Your task to perform on an android device: install app "Pluto TV - Live TV and Movies" Image 0: 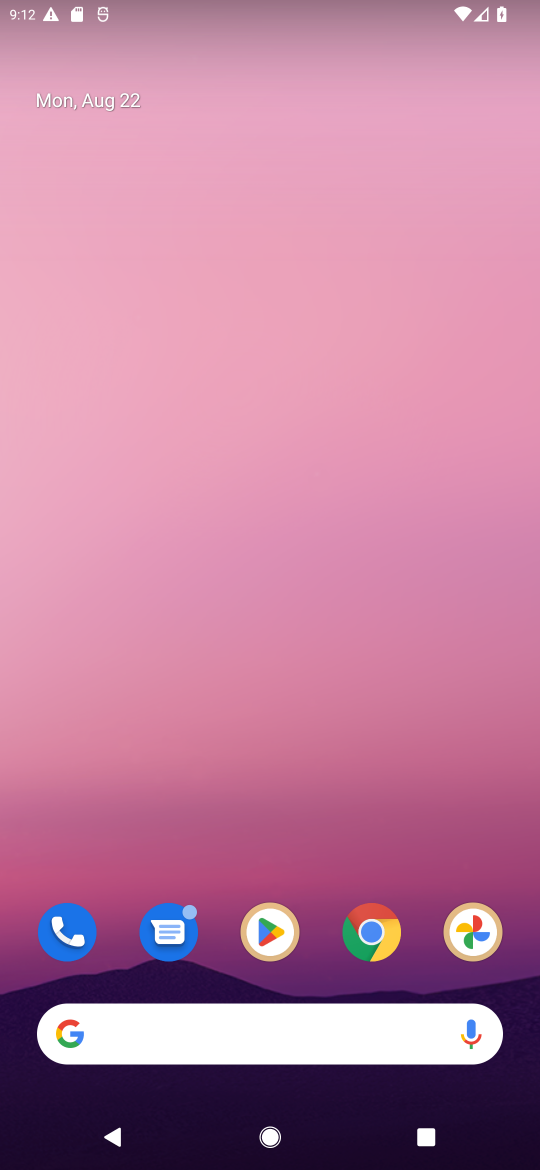
Step 0: click (255, 956)
Your task to perform on an android device: install app "Pluto TV - Live TV and Movies" Image 1: 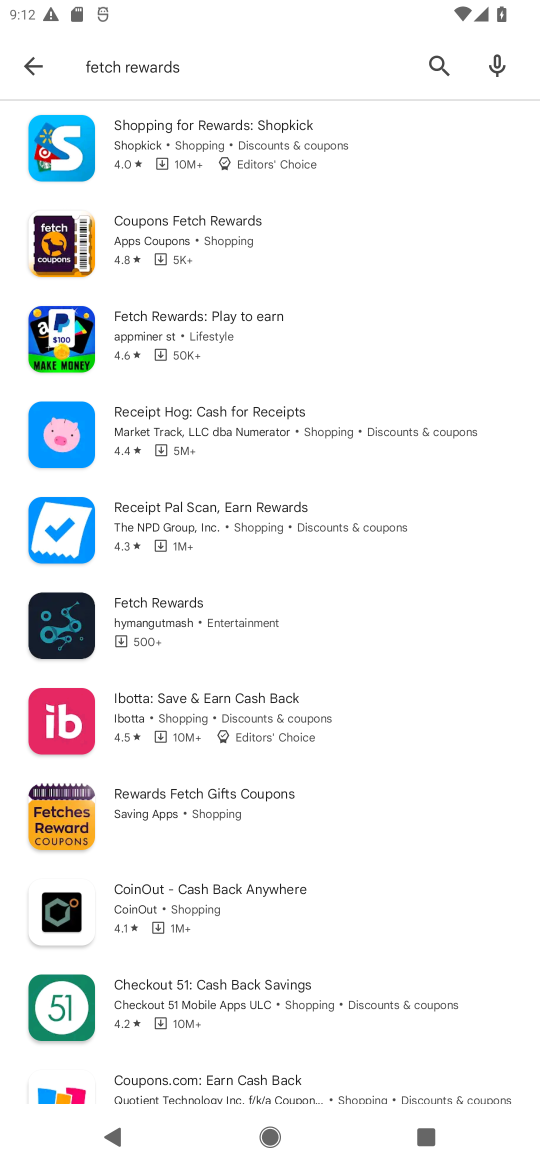
Step 1: click (462, 79)
Your task to perform on an android device: install app "Pluto TV - Live TV and Movies" Image 2: 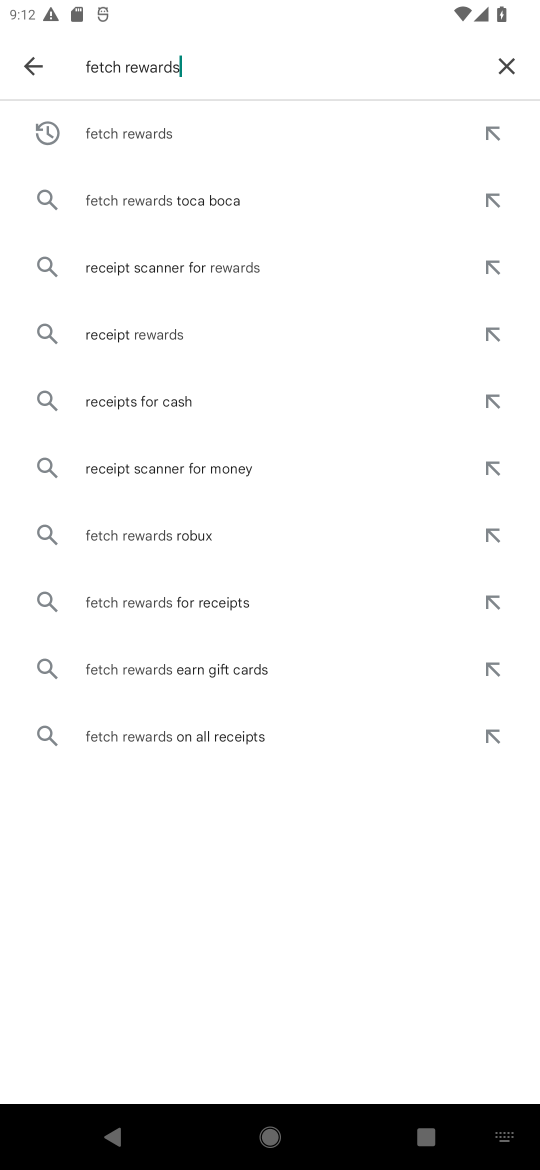
Step 2: click (426, 68)
Your task to perform on an android device: install app "Pluto TV - Live TV and Movies" Image 3: 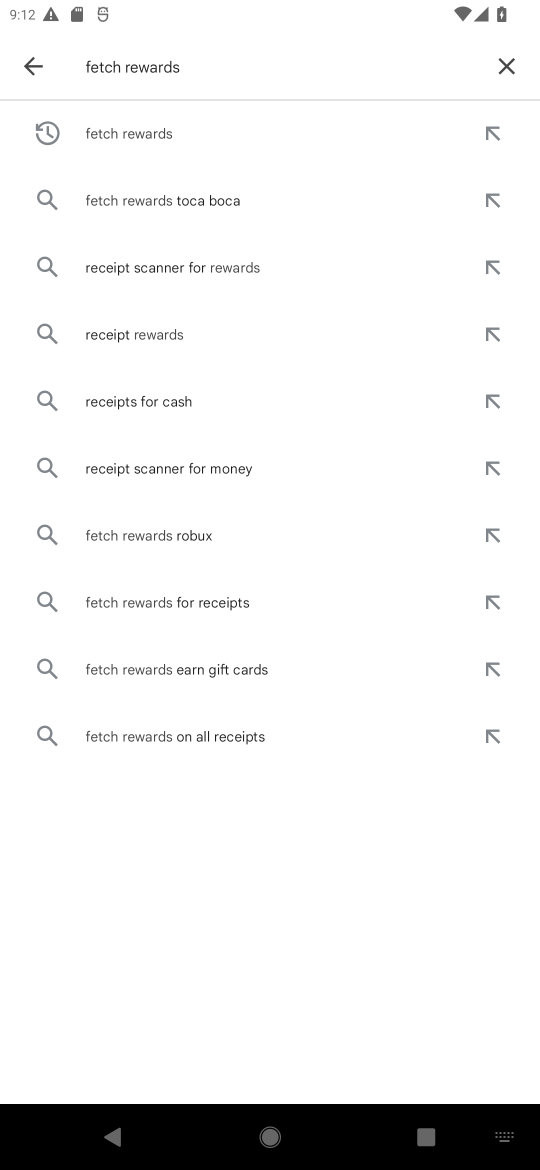
Step 3: click (438, 64)
Your task to perform on an android device: install app "Pluto TV - Live TV and Movies" Image 4: 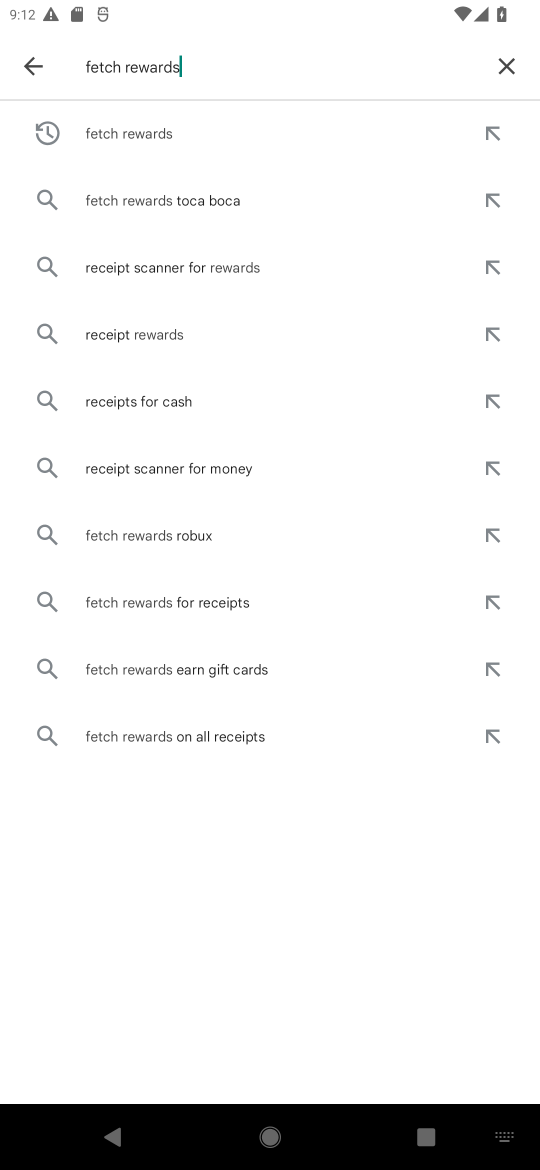
Step 4: click (519, 65)
Your task to perform on an android device: install app "Pluto TV - Live TV and Movies" Image 5: 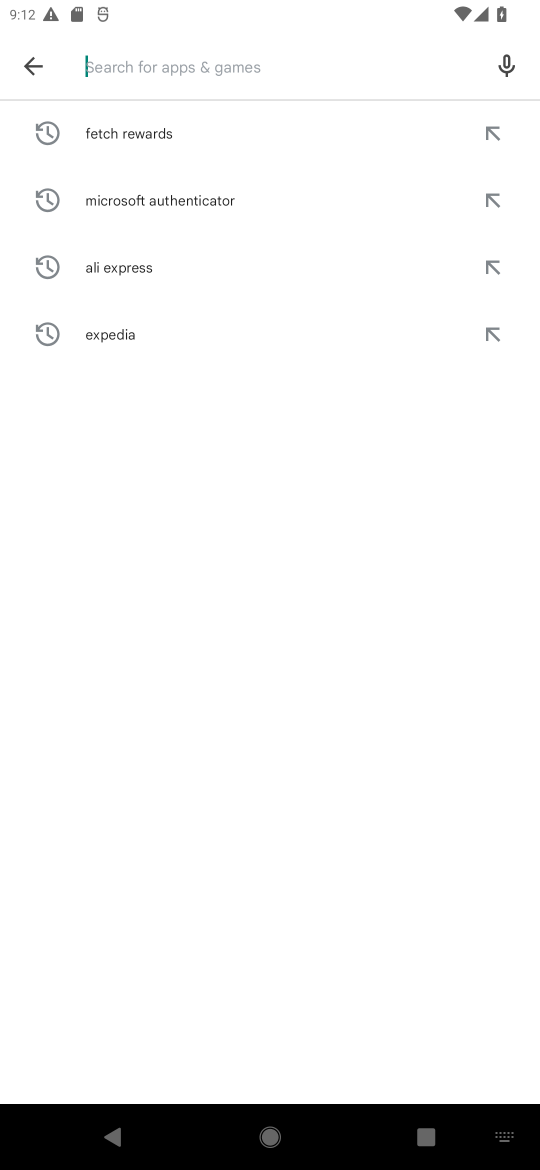
Step 5: type "pluto"
Your task to perform on an android device: install app "Pluto TV - Live TV and Movies" Image 6: 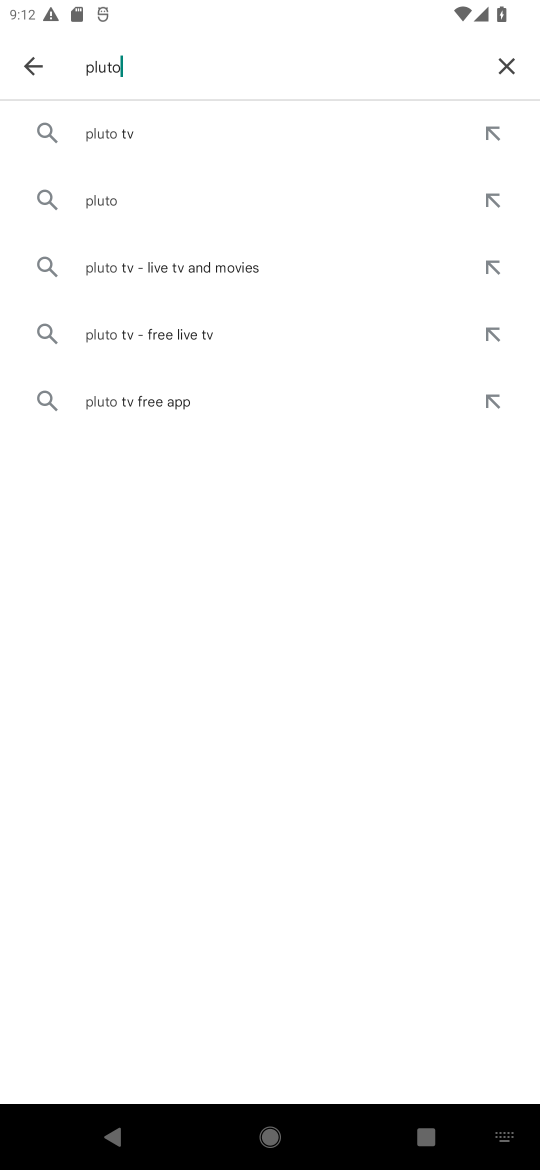
Step 6: click (164, 111)
Your task to perform on an android device: install app "Pluto TV - Live TV and Movies" Image 7: 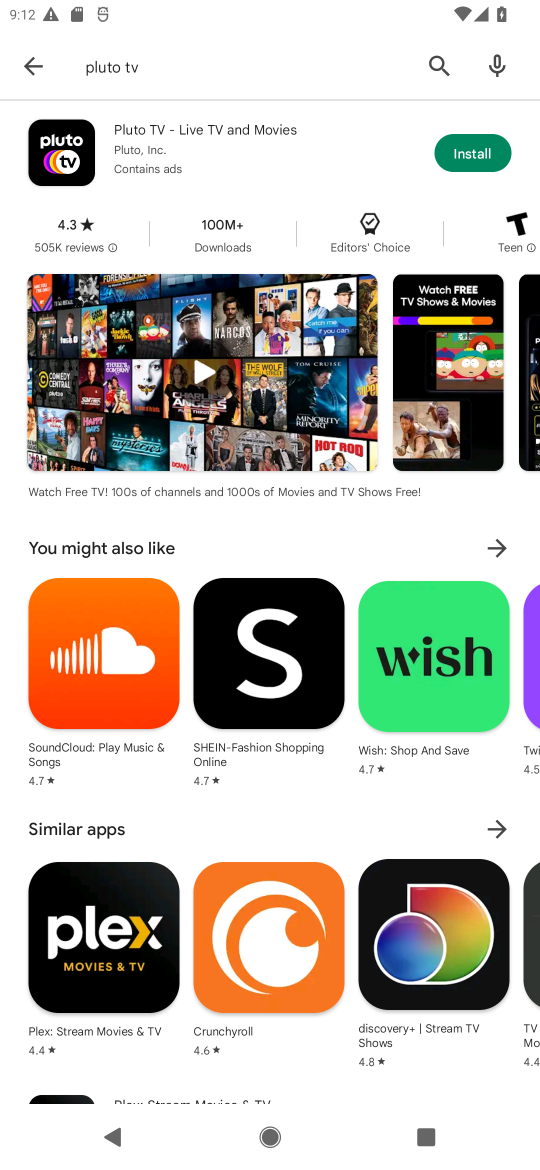
Step 7: click (462, 151)
Your task to perform on an android device: install app "Pluto TV - Live TV and Movies" Image 8: 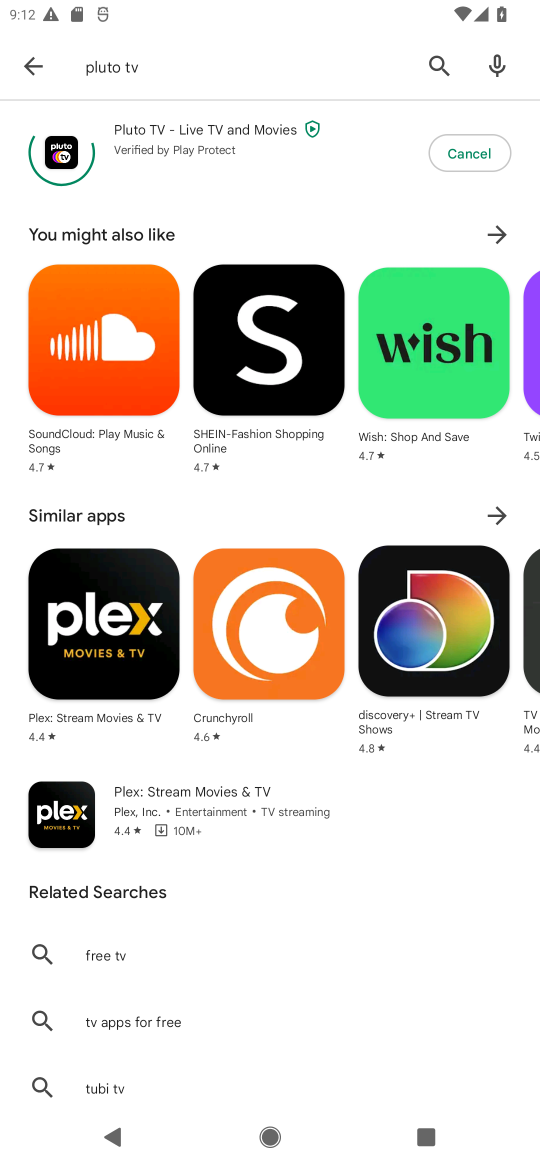
Step 8: task complete